Your task to perform on an android device: check android version Image 0: 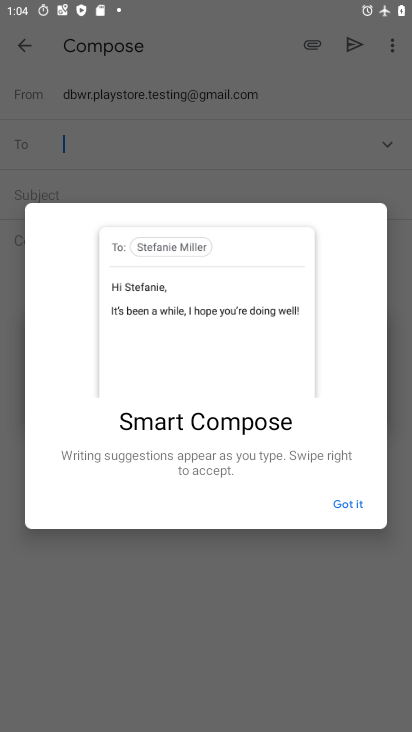
Step 0: press home button
Your task to perform on an android device: check android version Image 1: 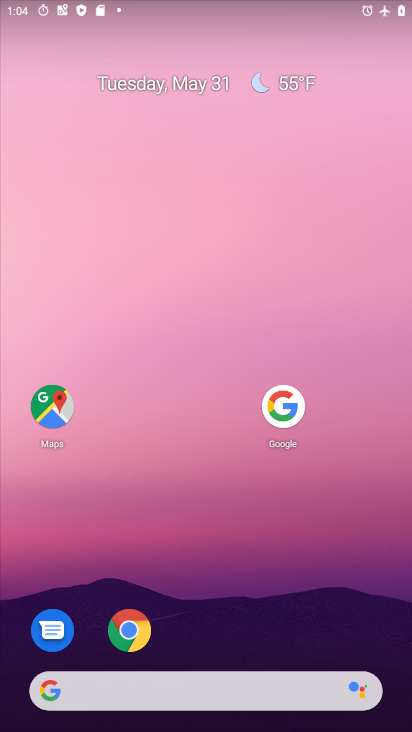
Step 1: drag from (183, 687) to (318, 0)
Your task to perform on an android device: check android version Image 2: 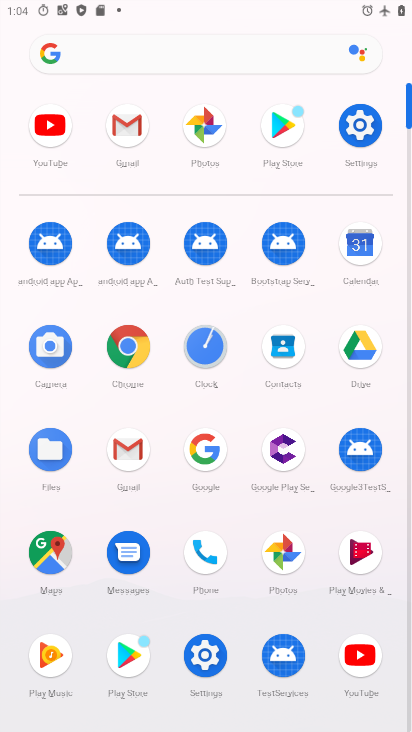
Step 2: click (360, 123)
Your task to perform on an android device: check android version Image 3: 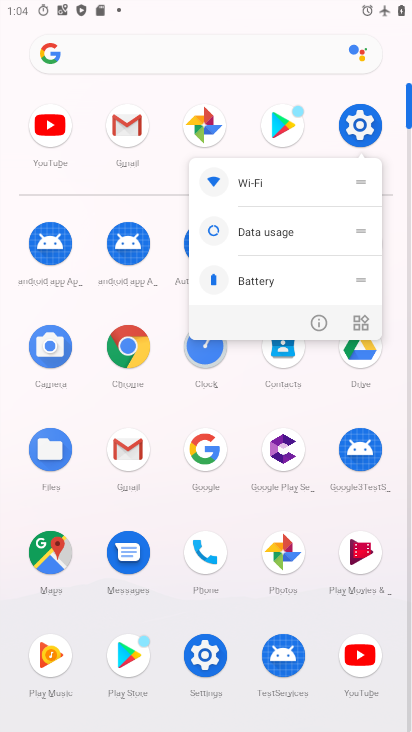
Step 3: click (360, 123)
Your task to perform on an android device: check android version Image 4: 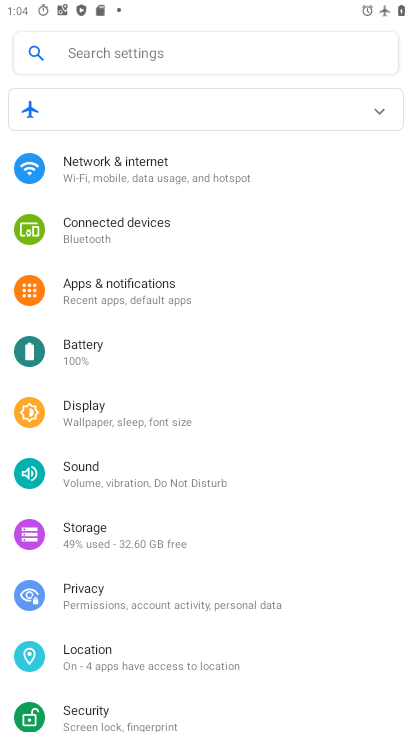
Step 4: drag from (269, 694) to (346, 103)
Your task to perform on an android device: check android version Image 5: 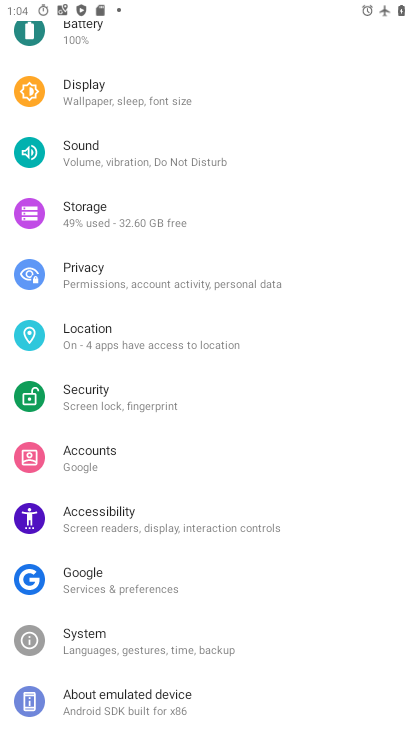
Step 5: click (152, 700)
Your task to perform on an android device: check android version Image 6: 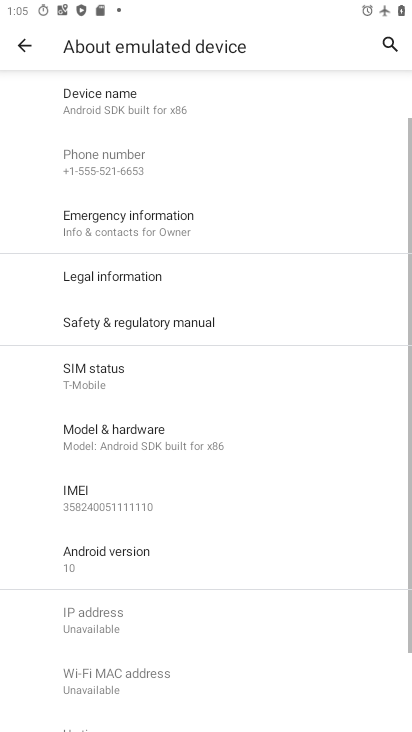
Step 6: click (122, 540)
Your task to perform on an android device: check android version Image 7: 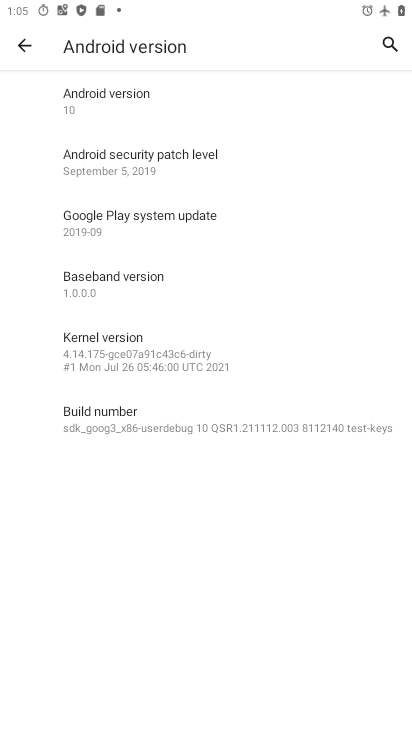
Step 7: task complete